Your task to perform on an android device: Show me productivity apps on the Play Store Image 0: 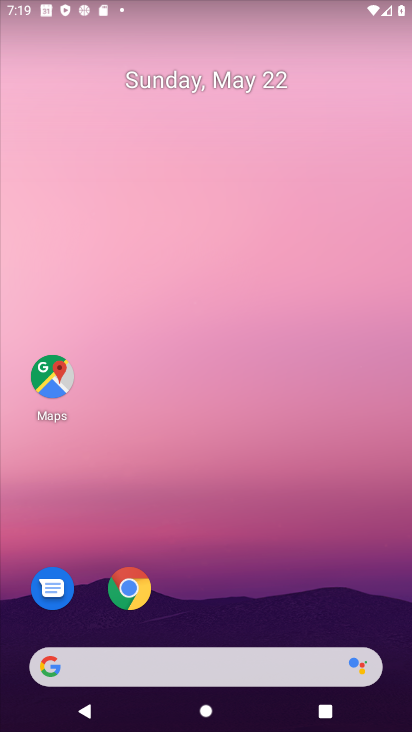
Step 0: drag from (202, 507) to (122, 63)
Your task to perform on an android device: Show me productivity apps on the Play Store Image 1: 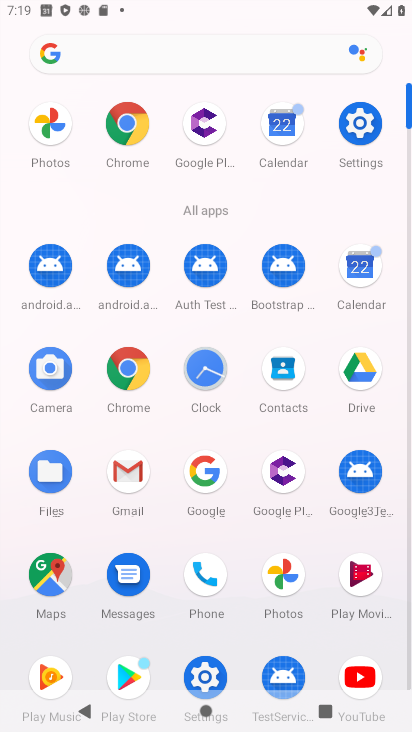
Step 1: click (134, 676)
Your task to perform on an android device: Show me productivity apps on the Play Store Image 2: 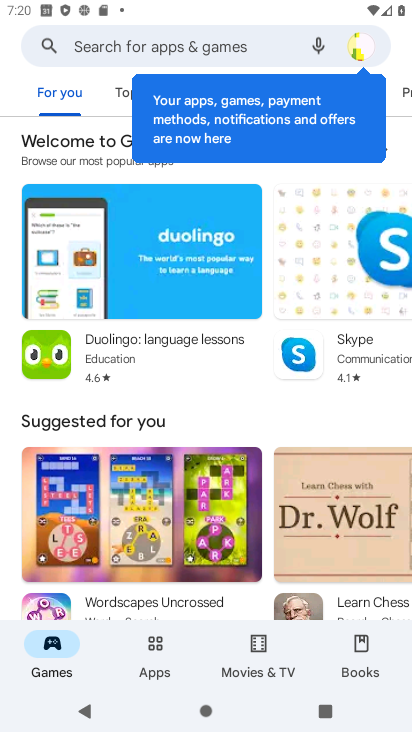
Step 2: click (149, 648)
Your task to perform on an android device: Show me productivity apps on the Play Store Image 3: 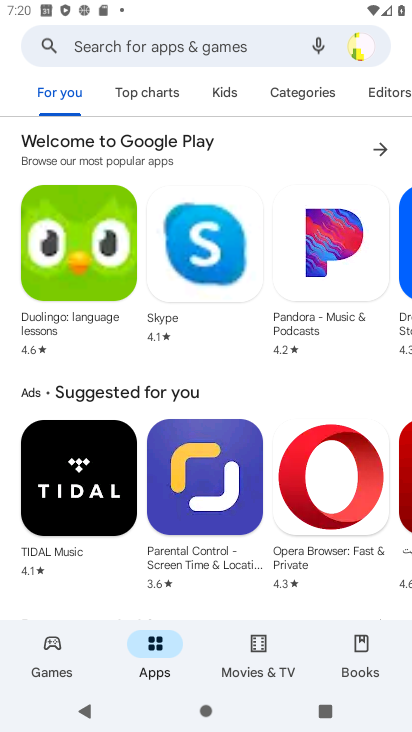
Step 3: task complete